Your task to perform on an android device: Open Google Maps Image 0: 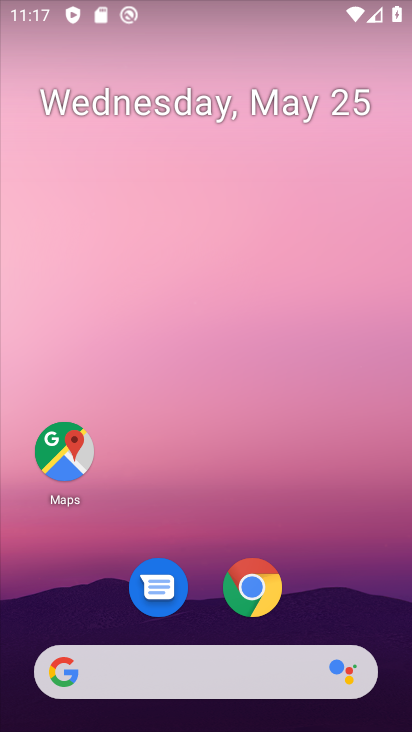
Step 0: drag from (290, 701) to (225, 193)
Your task to perform on an android device: Open Google Maps Image 1: 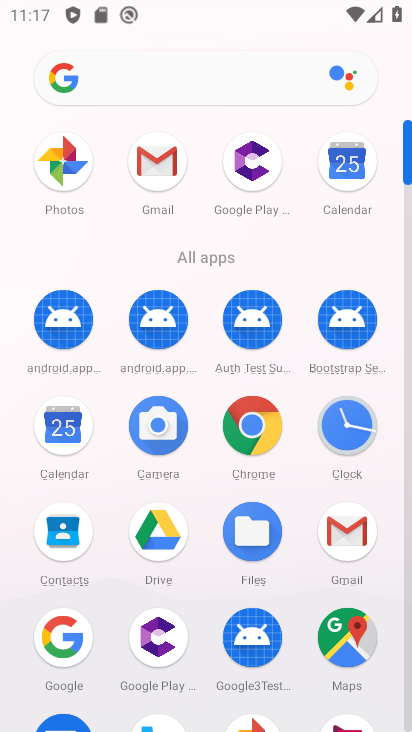
Step 1: click (346, 647)
Your task to perform on an android device: Open Google Maps Image 2: 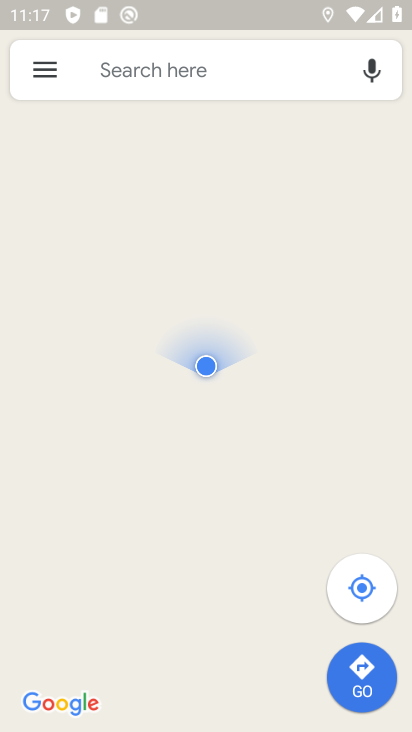
Step 2: click (157, 75)
Your task to perform on an android device: Open Google Maps Image 3: 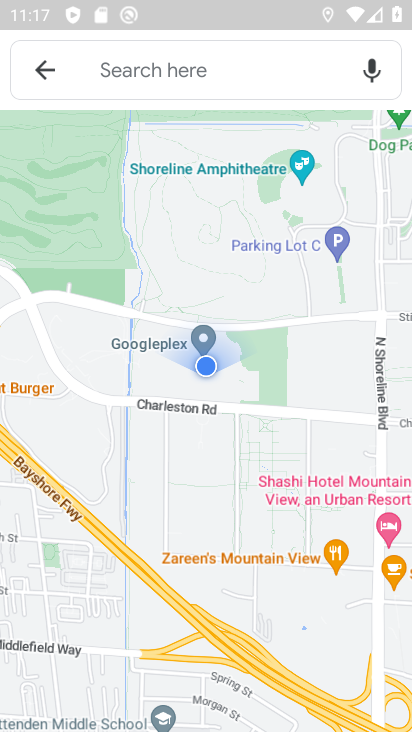
Step 3: click (359, 592)
Your task to perform on an android device: Open Google Maps Image 4: 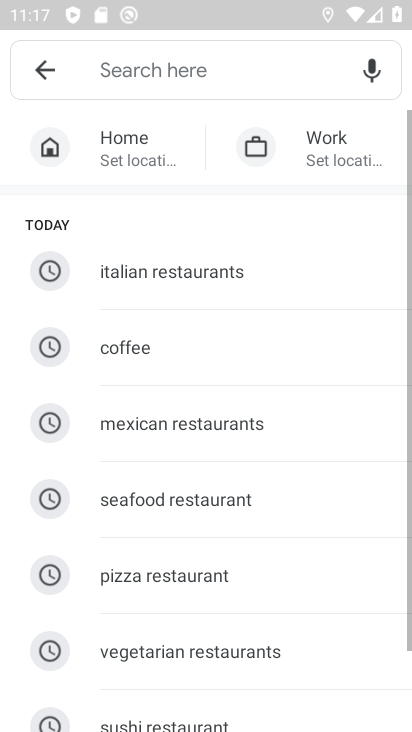
Step 4: click (44, 66)
Your task to perform on an android device: Open Google Maps Image 5: 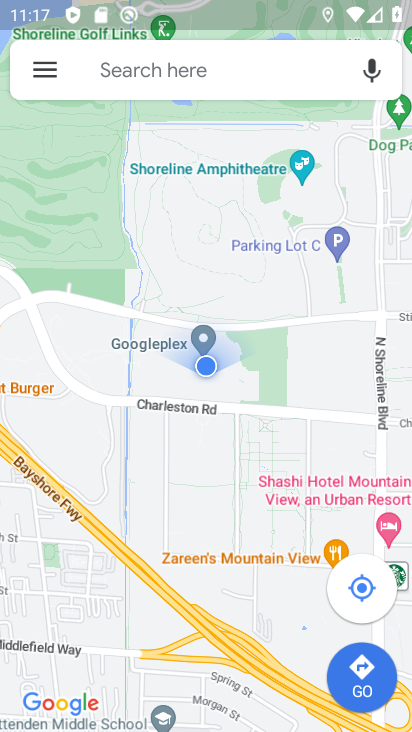
Step 5: click (355, 579)
Your task to perform on an android device: Open Google Maps Image 6: 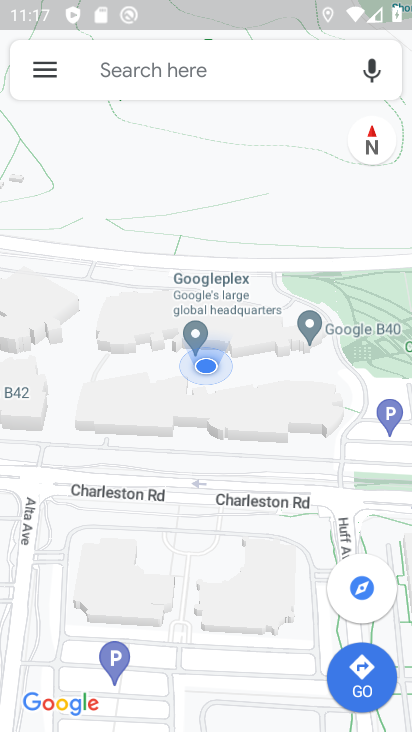
Step 6: click (361, 599)
Your task to perform on an android device: Open Google Maps Image 7: 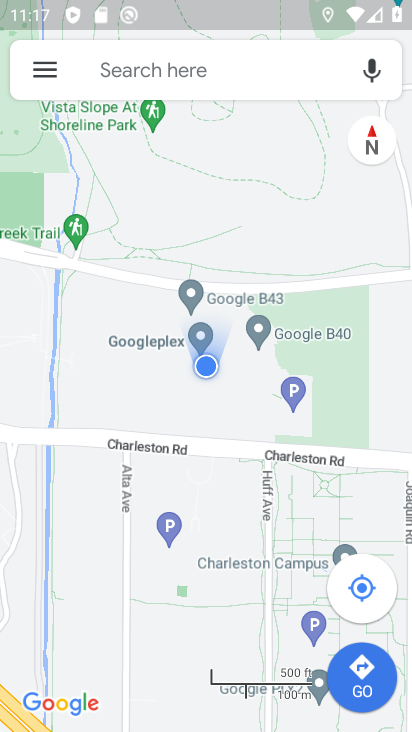
Step 7: task complete